Your task to perform on an android device: Go to wifi settings Image 0: 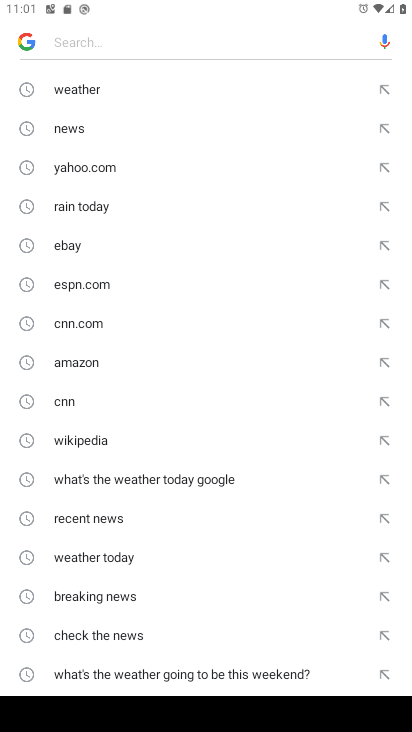
Step 0: press back button
Your task to perform on an android device: Go to wifi settings Image 1: 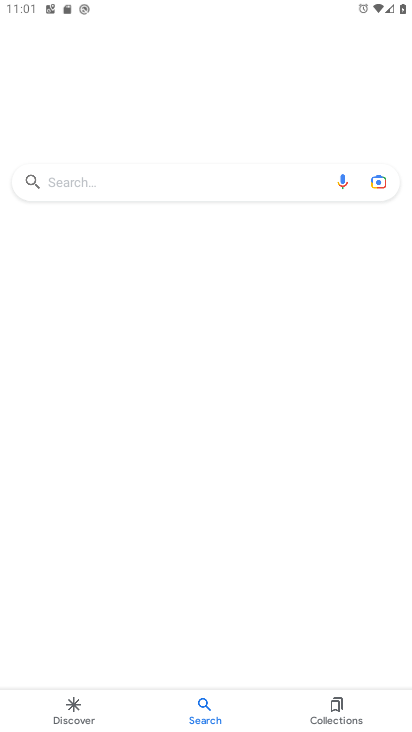
Step 1: press back button
Your task to perform on an android device: Go to wifi settings Image 2: 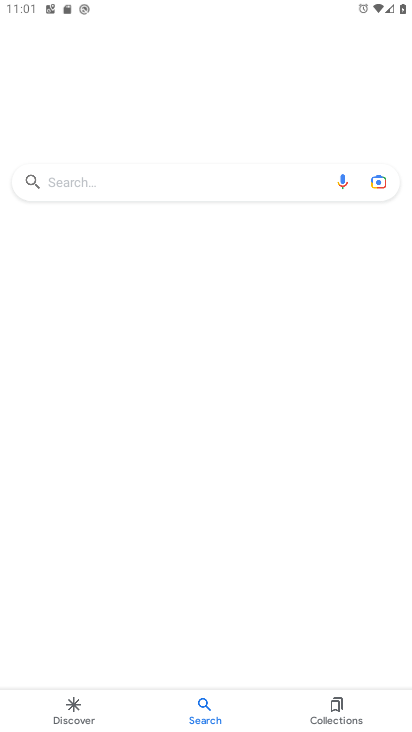
Step 2: press back button
Your task to perform on an android device: Go to wifi settings Image 3: 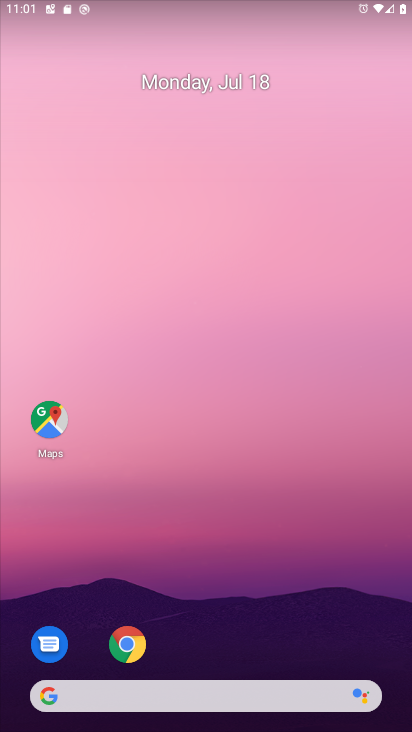
Step 3: drag from (278, 656) to (279, 6)
Your task to perform on an android device: Go to wifi settings Image 4: 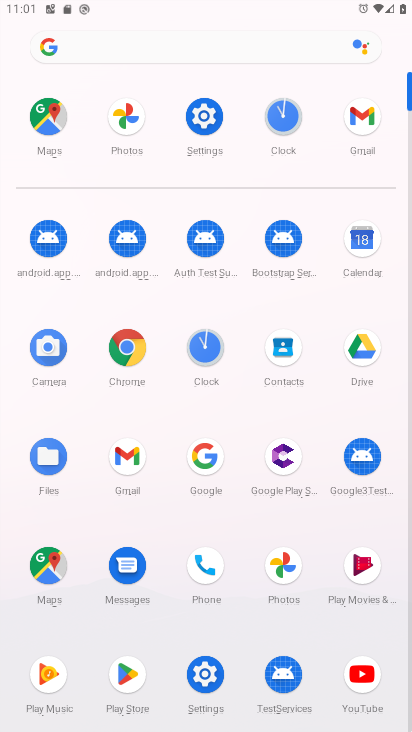
Step 4: click (202, 105)
Your task to perform on an android device: Go to wifi settings Image 5: 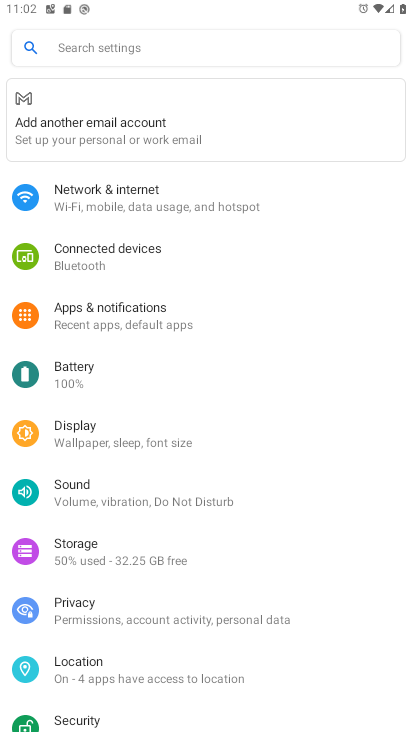
Step 5: click (233, 196)
Your task to perform on an android device: Go to wifi settings Image 6: 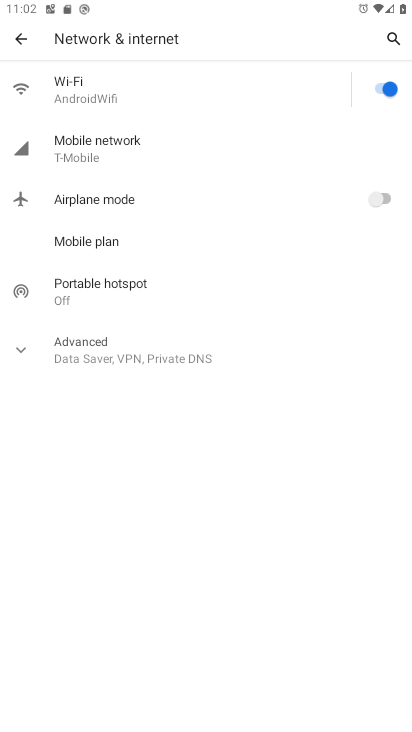
Step 6: task complete